Your task to perform on an android device: Open the stopwatch Image 0: 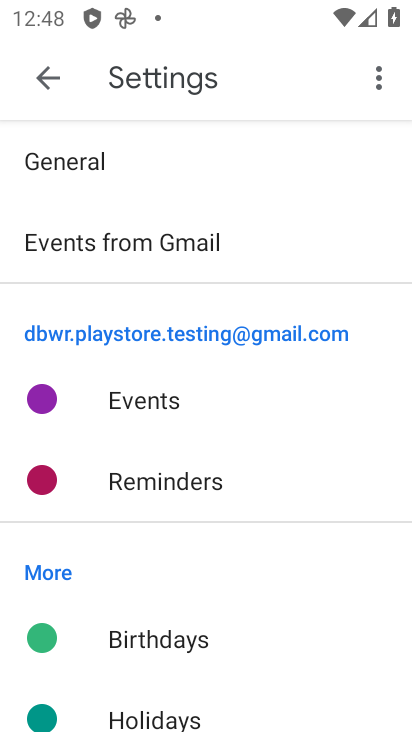
Step 0: press home button
Your task to perform on an android device: Open the stopwatch Image 1: 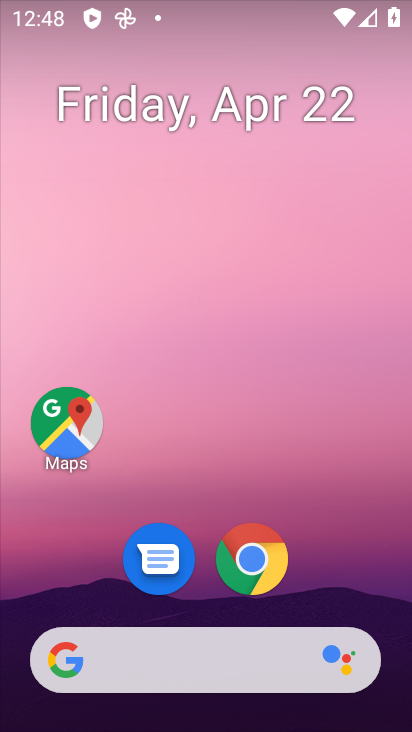
Step 1: drag from (351, 573) to (365, 164)
Your task to perform on an android device: Open the stopwatch Image 2: 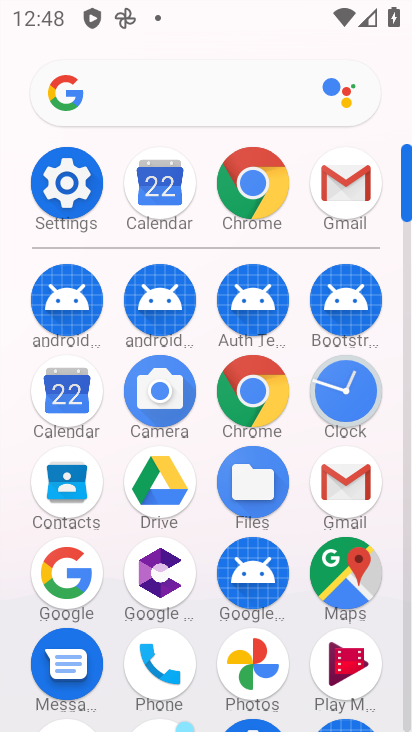
Step 2: click (340, 390)
Your task to perform on an android device: Open the stopwatch Image 3: 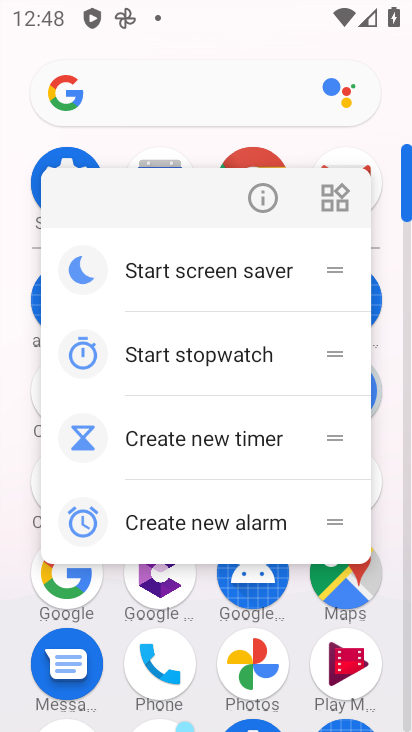
Step 3: click (373, 388)
Your task to perform on an android device: Open the stopwatch Image 4: 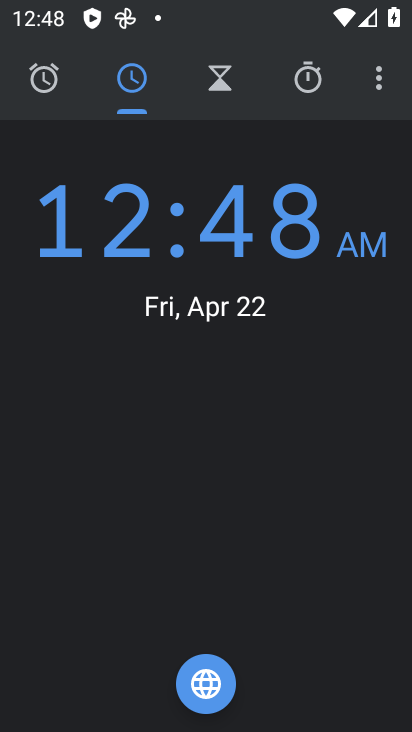
Step 4: click (318, 78)
Your task to perform on an android device: Open the stopwatch Image 5: 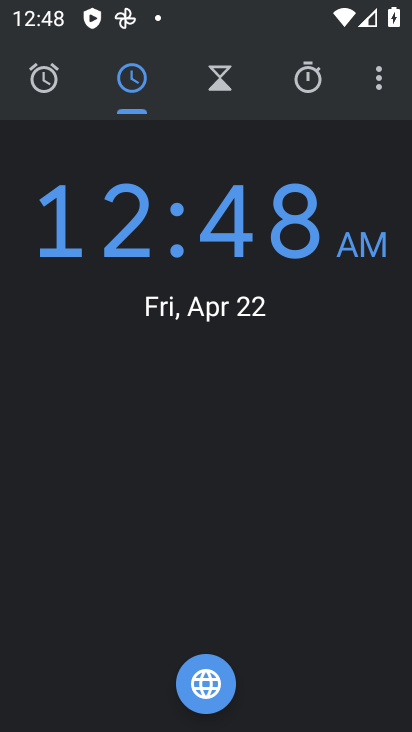
Step 5: click (313, 65)
Your task to perform on an android device: Open the stopwatch Image 6: 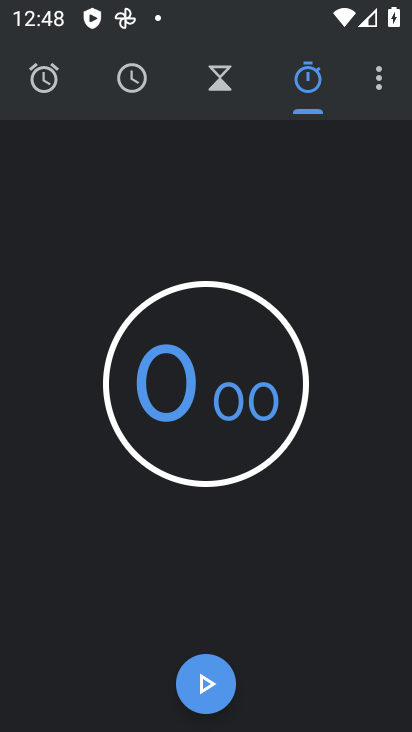
Step 6: task complete